Your task to perform on an android device: find photos in the google photos app Image 0: 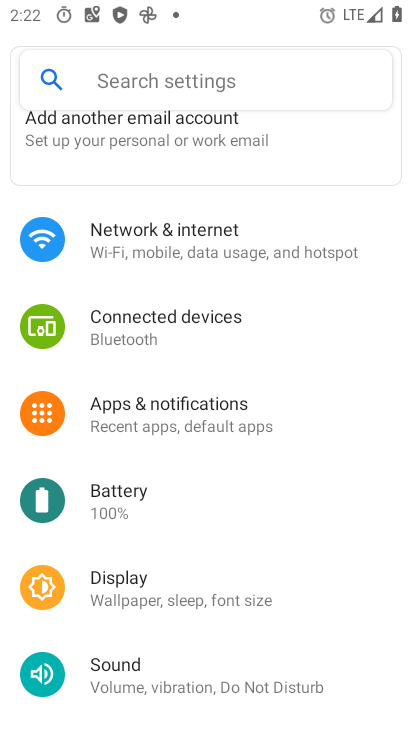
Step 0: press home button
Your task to perform on an android device: find photos in the google photos app Image 1: 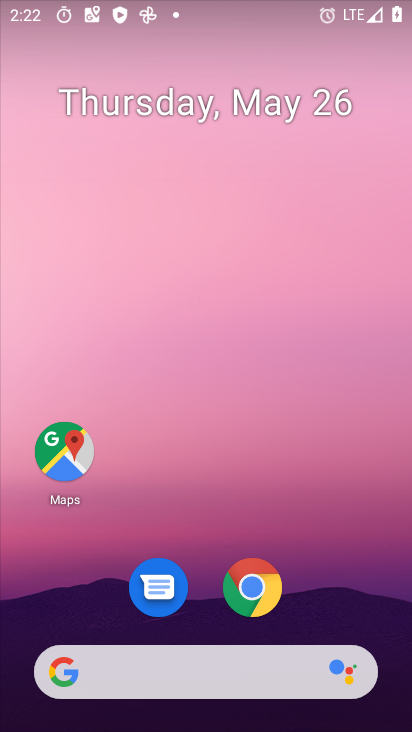
Step 1: drag from (384, 629) to (382, 70)
Your task to perform on an android device: find photos in the google photos app Image 2: 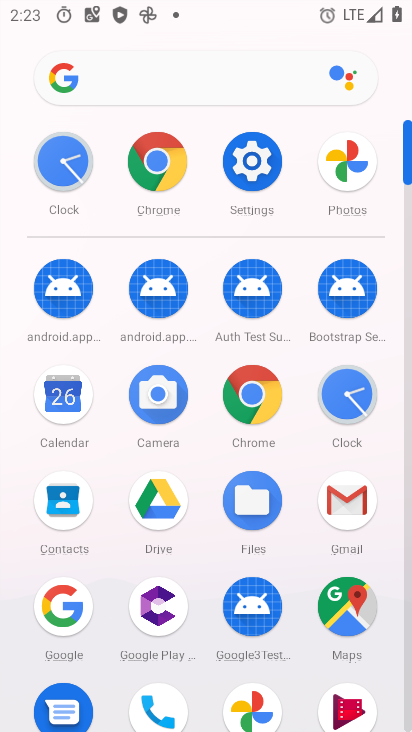
Step 2: drag from (293, 673) to (297, 344)
Your task to perform on an android device: find photos in the google photos app Image 3: 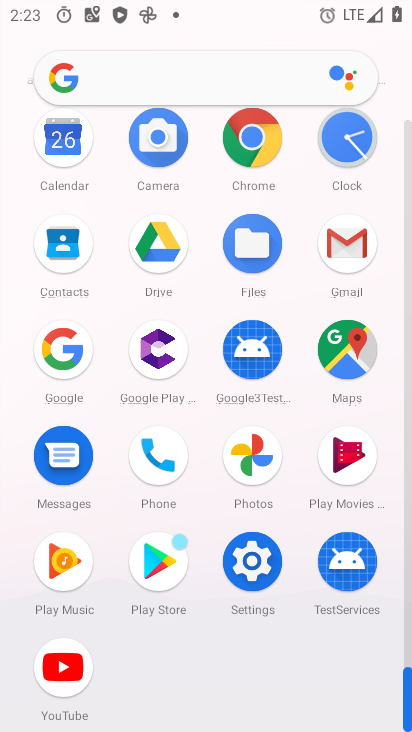
Step 3: click (248, 474)
Your task to perform on an android device: find photos in the google photos app Image 4: 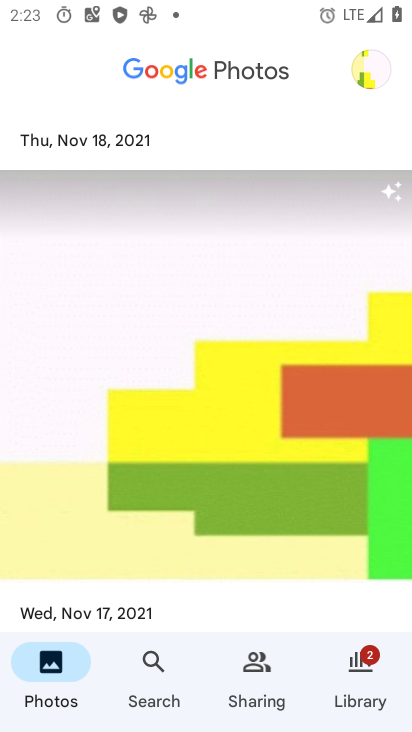
Step 4: task complete